Your task to perform on an android device: Search for "dell xps" on ebay, select the first entry, and add it to the cart. Image 0: 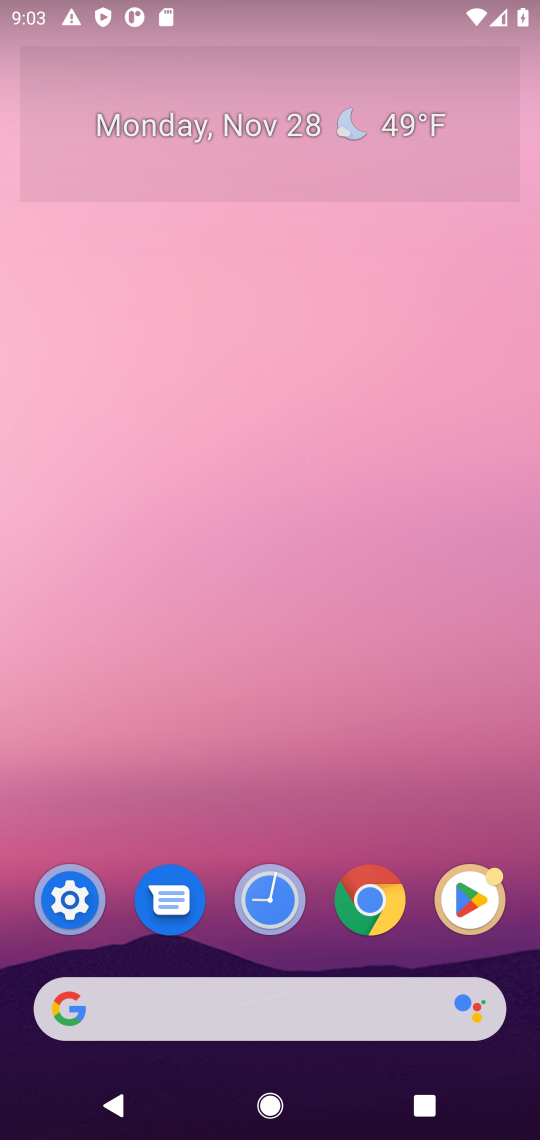
Step 0: click (182, 1023)
Your task to perform on an android device: Search for "dell xps" on ebay, select the first entry, and add it to the cart. Image 1: 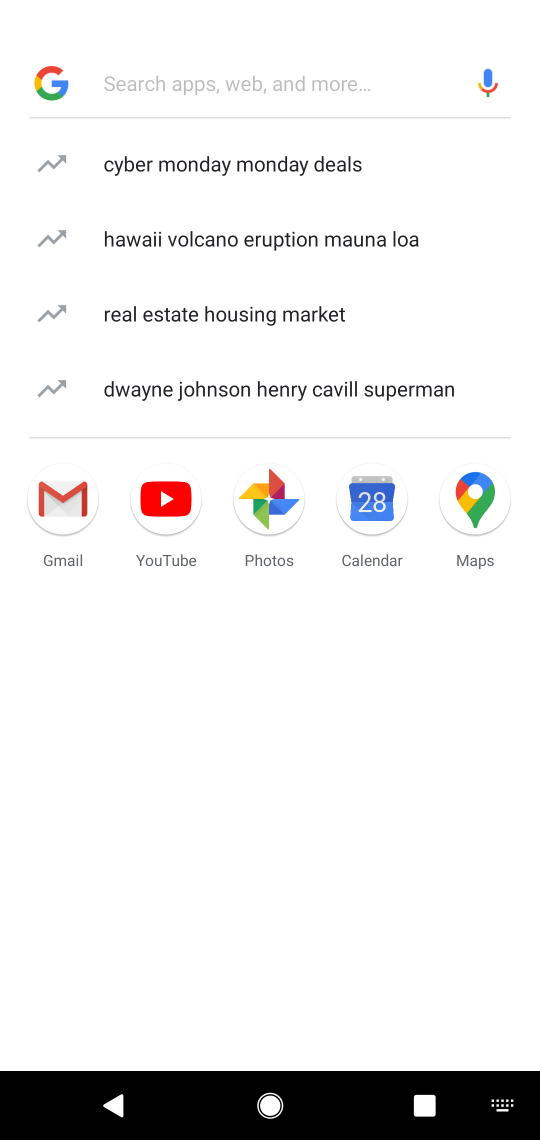
Step 1: type "dell xps"
Your task to perform on an android device: Search for "dell xps" on ebay, select the first entry, and add it to the cart. Image 2: 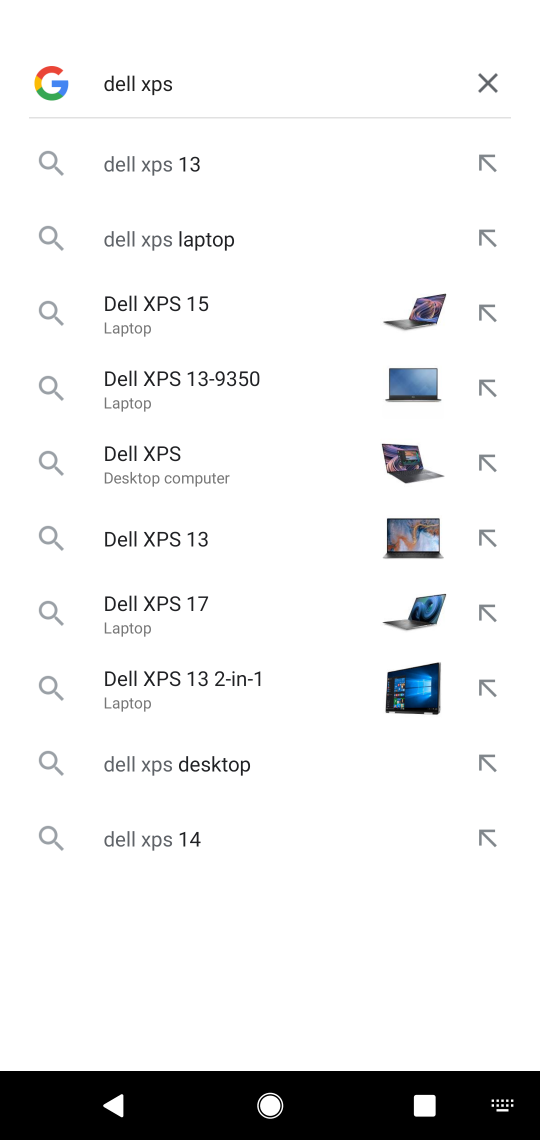
Step 2: click (188, 223)
Your task to perform on an android device: Search for "dell xps" on ebay, select the first entry, and add it to the cart. Image 3: 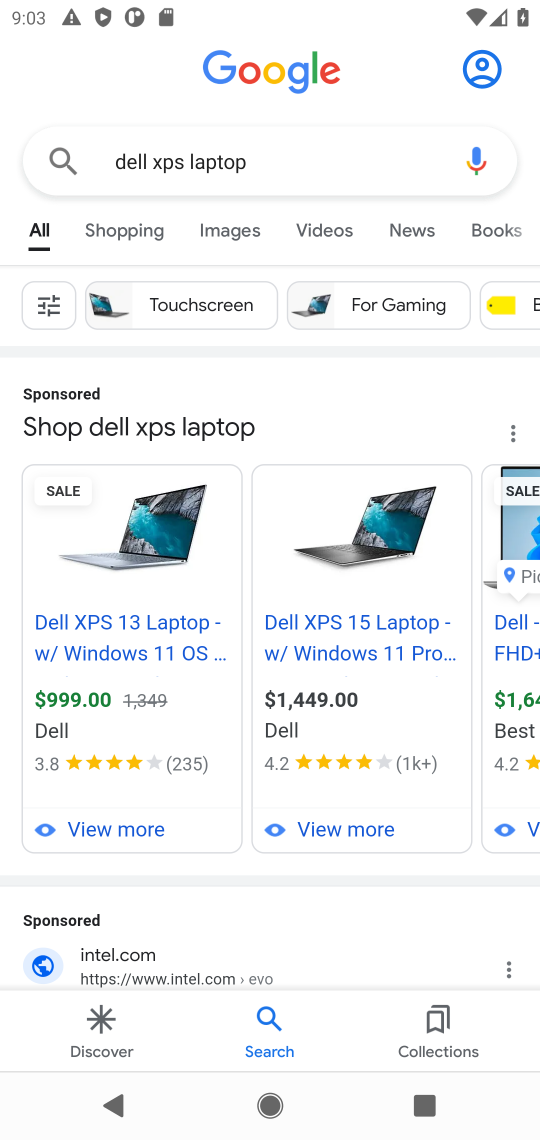
Step 3: task complete